Your task to perform on an android device: check data usage Image 0: 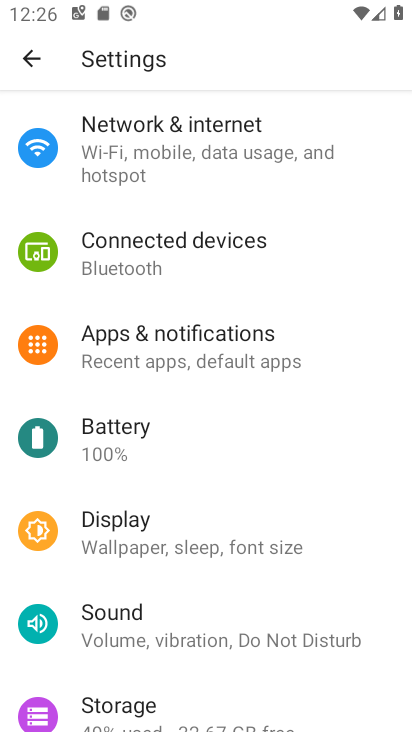
Step 0: click (170, 172)
Your task to perform on an android device: check data usage Image 1: 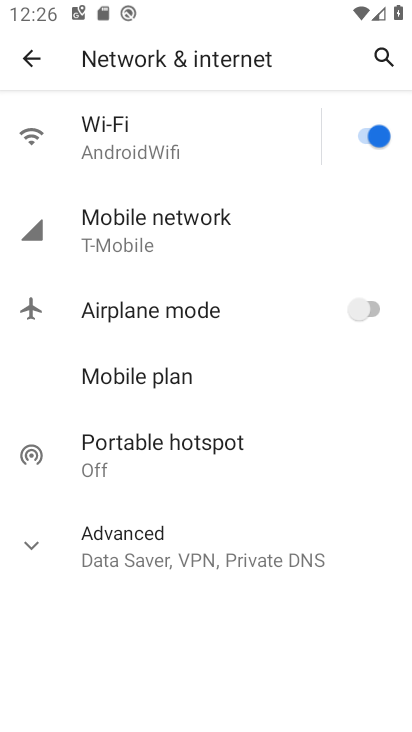
Step 1: click (175, 231)
Your task to perform on an android device: check data usage Image 2: 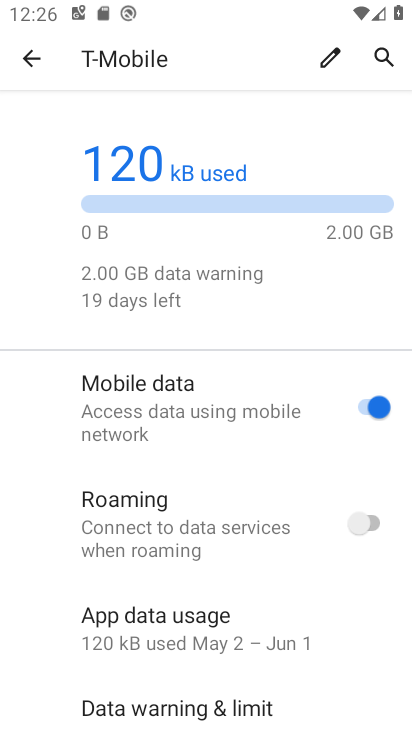
Step 2: task complete